Your task to perform on an android device: change keyboard looks Image 0: 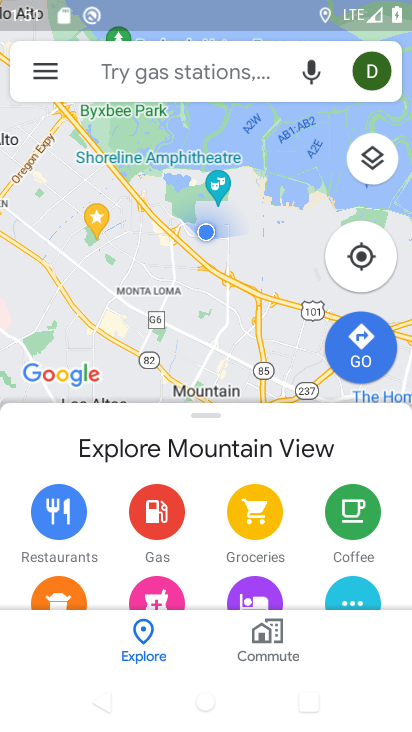
Step 0: press home button
Your task to perform on an android device: change keyboard looks Image 1: 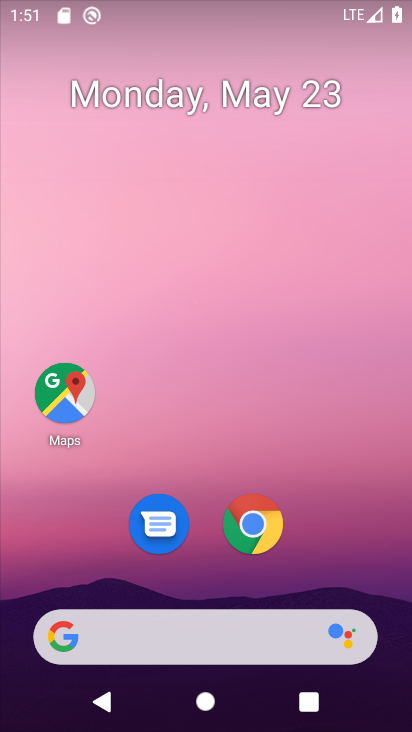
Step 1: drag from (209, 395) to (293, 0)
Your task to perform on an android device: change keyboard looks Image 2: 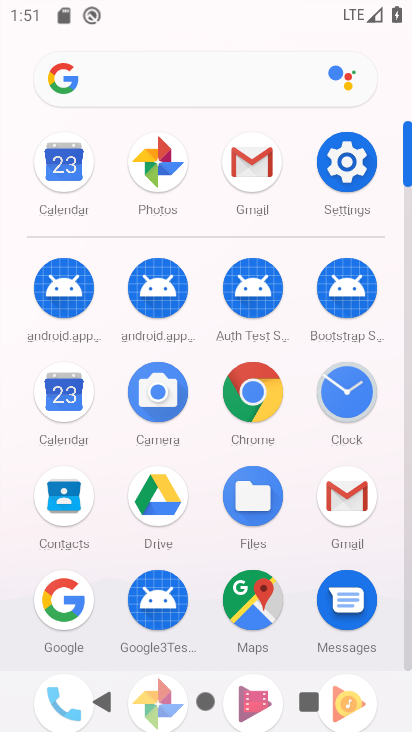
Step 2: click (349, 156)
Your task to perform on an android device: change keyboard looks Image 3: 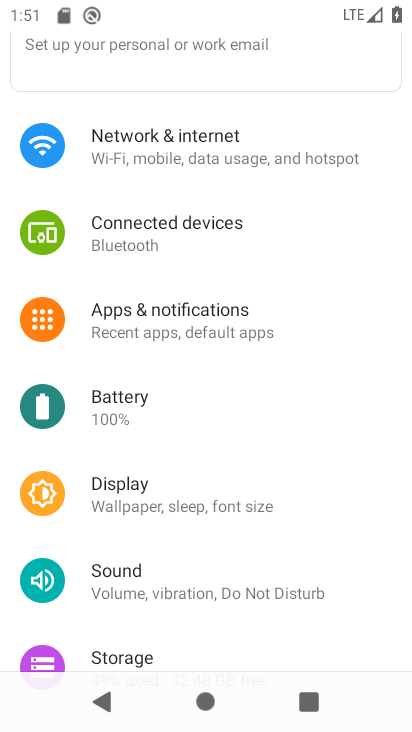
Step 3: drag from (224, 600) to (323, 99)
Your task to perform on an android device: change keyboard looks Image 4: 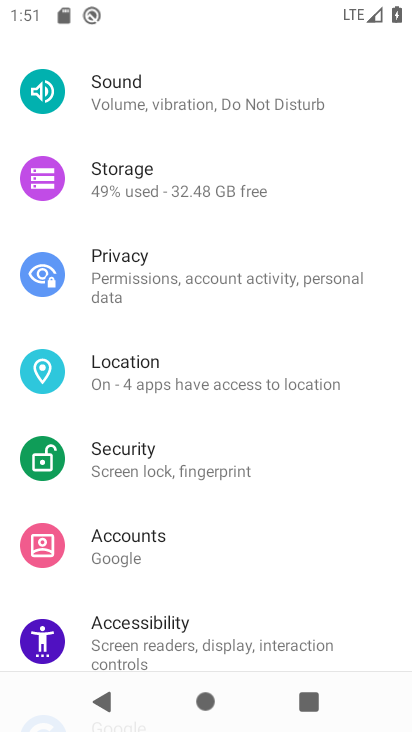
Step 4: drag from (227, 528) to (283, 139)
Your task to perform on an android device: change keyboard looks Image 5: 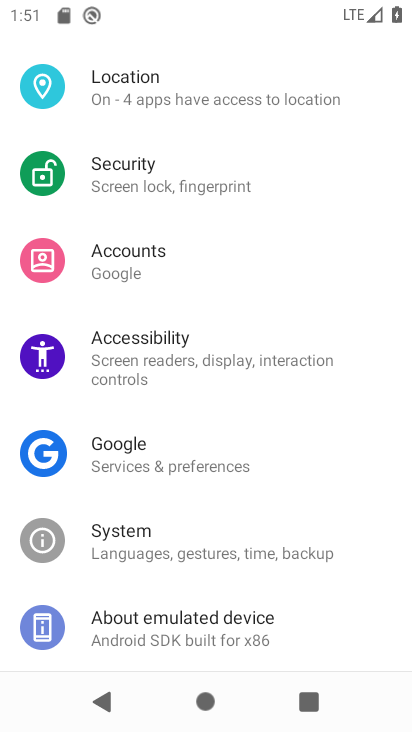
Step 5: click (169, 542)
Your task to perform on an android device: change keyboard looks Image 6: 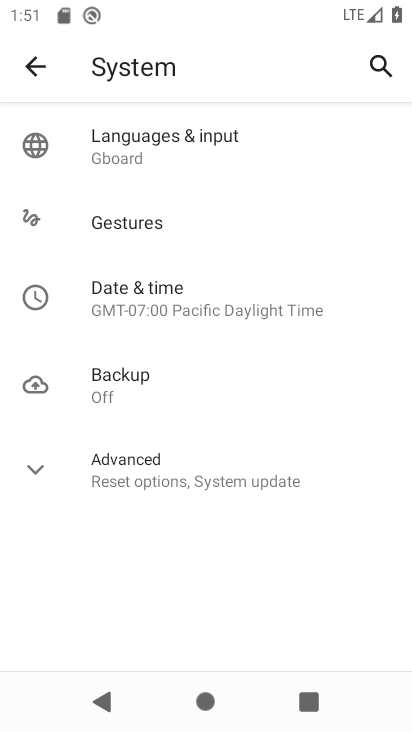
Step 6: click (223, 154)
Your task to perform on an android device: change keyboard looks Image 7: 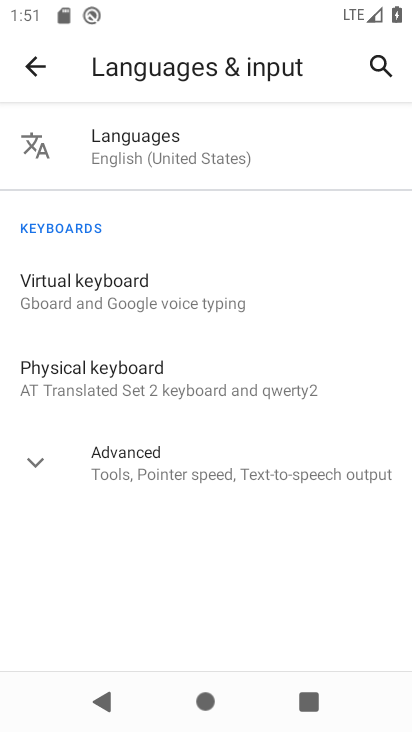
Step 7: click (158, 291)
Your task to perform on an android device: change keyboard looks Image 8: 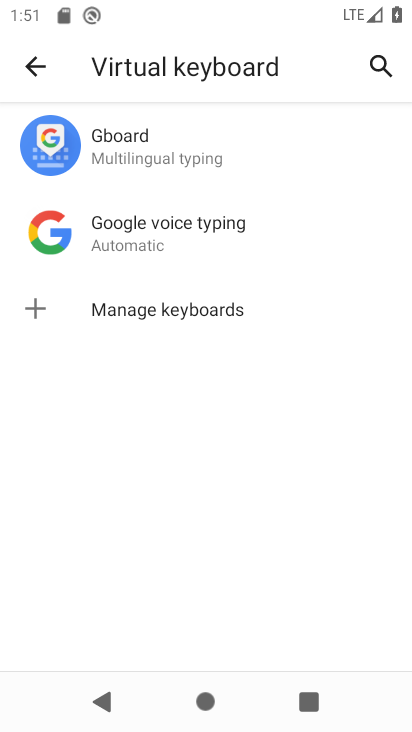
Step 8: click (157, 144)
Your task to perform on an android device: change keyboard looks Image 9: 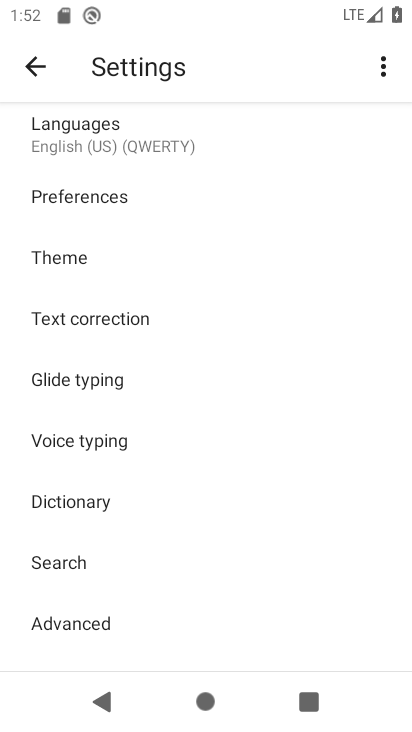
Step 9: click (76, 255)
Your task to perform on an android device: change keyboard looks Image 10: 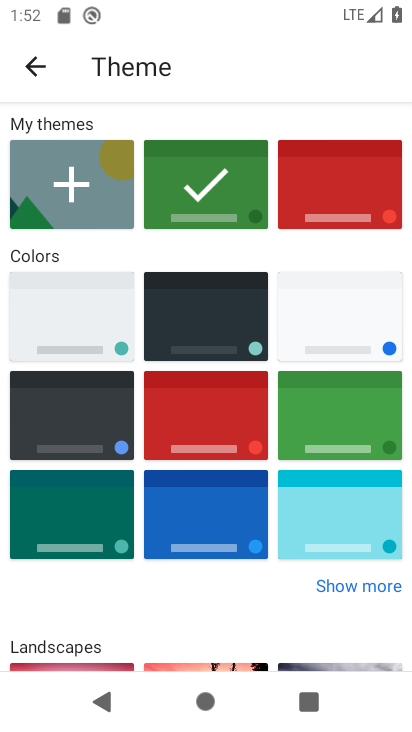
Step 10: click (90, 311)
Your task to perform on an android device: change keyboard looks Image 11: 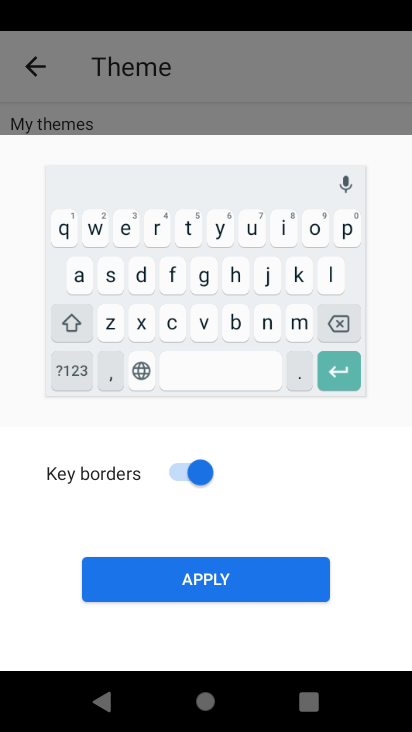
Step 11: click (213, 579)
Your task to perform on an android device: change keyboard looks Image 12: 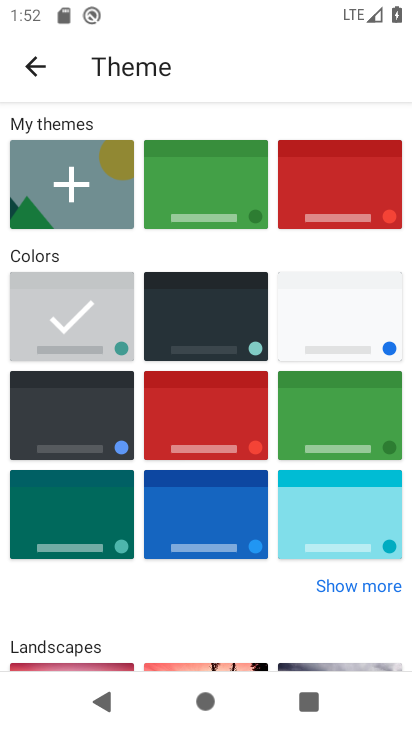
Step 12: task complete